Your task to perform on an android device: Go to battery settings Image 0: 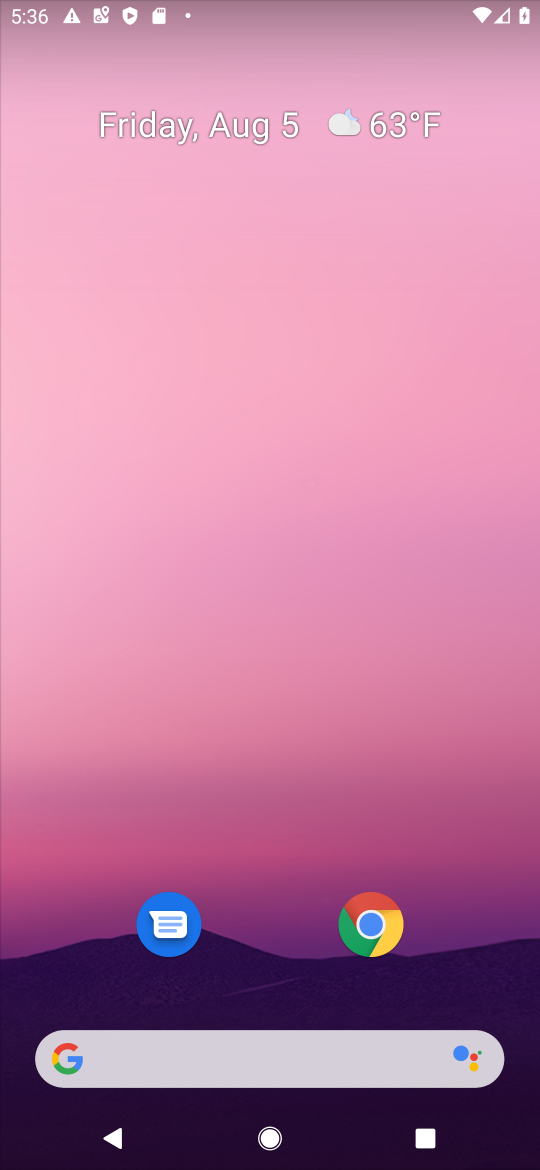
Step 0: drag from (189, 977) to (236, 432)
Your task to perform on an android device: Go to battery settings Image 1: 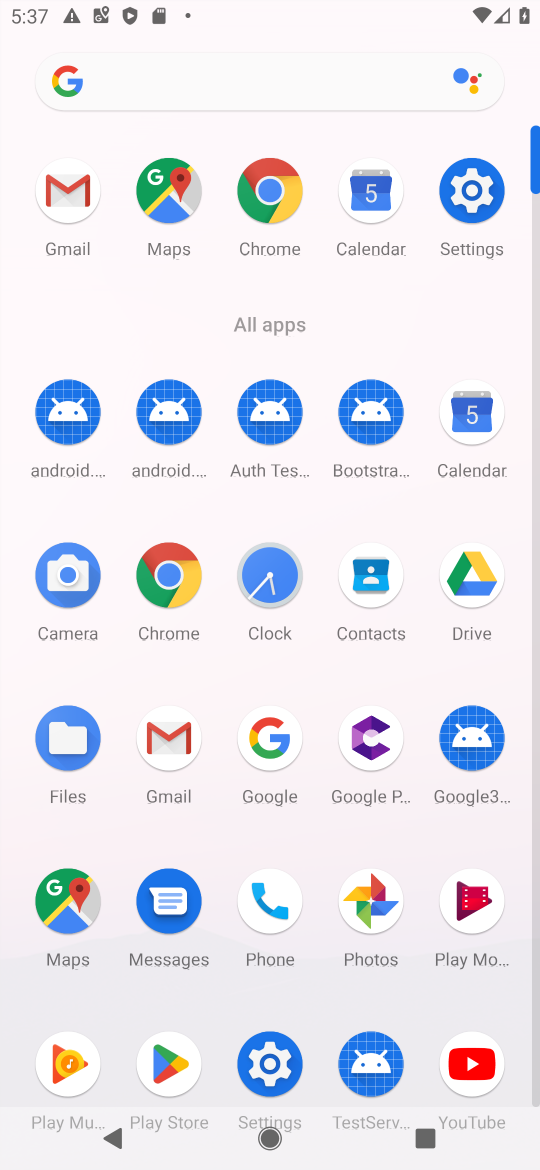
Step 1: click (493, 181)
Your task to perform on an android device: Go to battery settings Image 2: 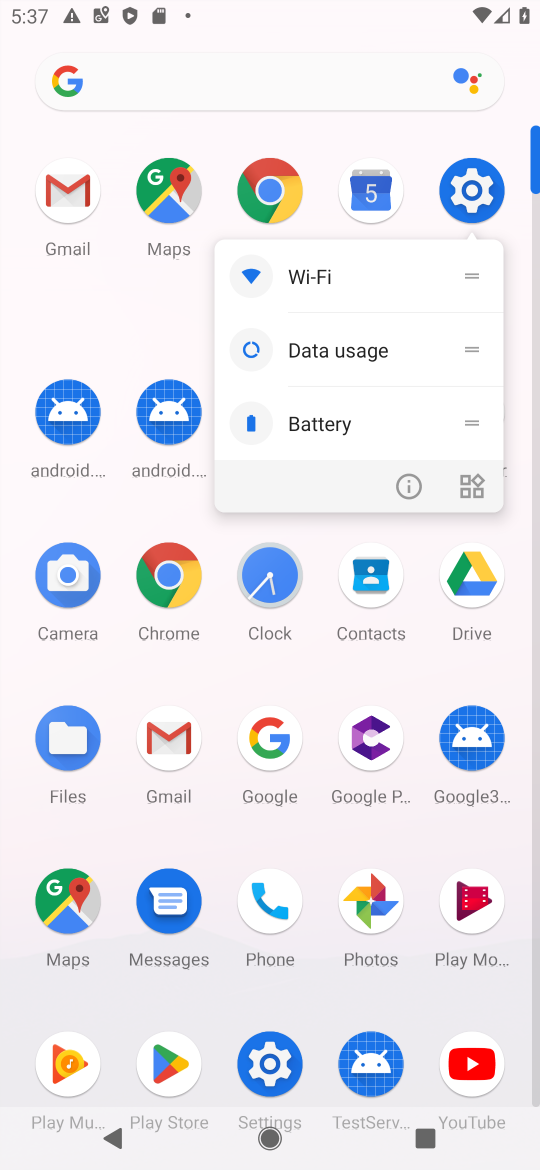
Step 2: click (493, 181)
Your task to perform on an android device: Go to battery settings Image 3: 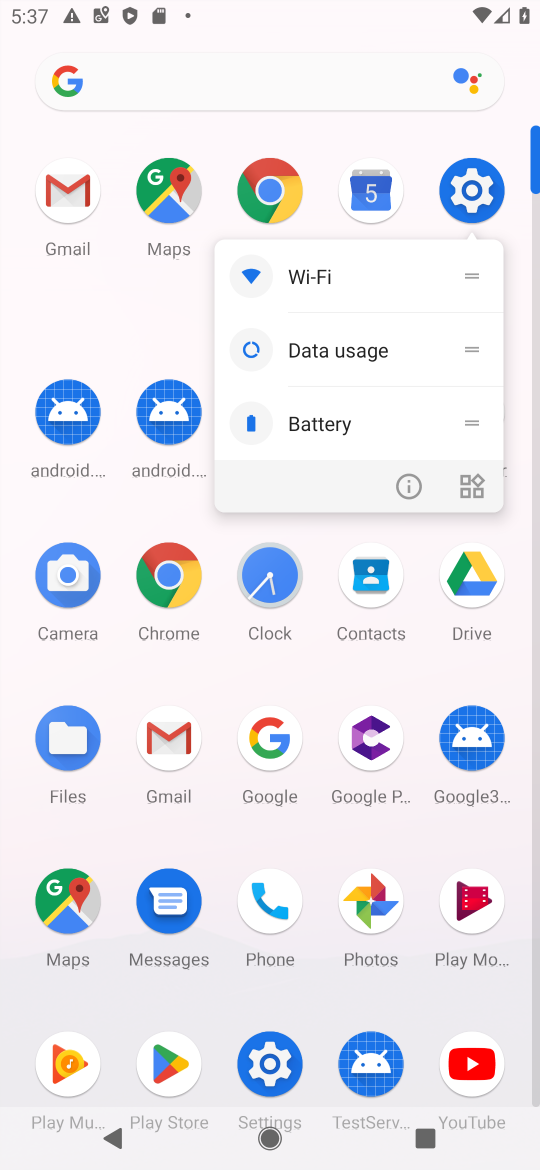
Step 3: click (493, 181)
Your task to perform on an android device: Go to battery settings Image 4: 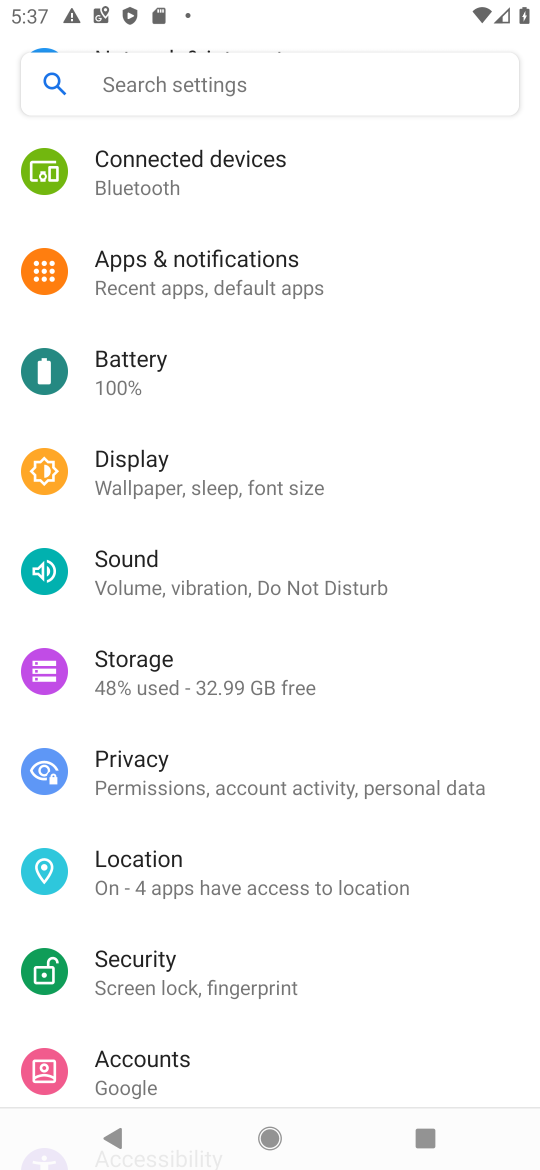
Step 4: click (190, 395)
Your task to perform on an android device: Go to battery settings Image 5: 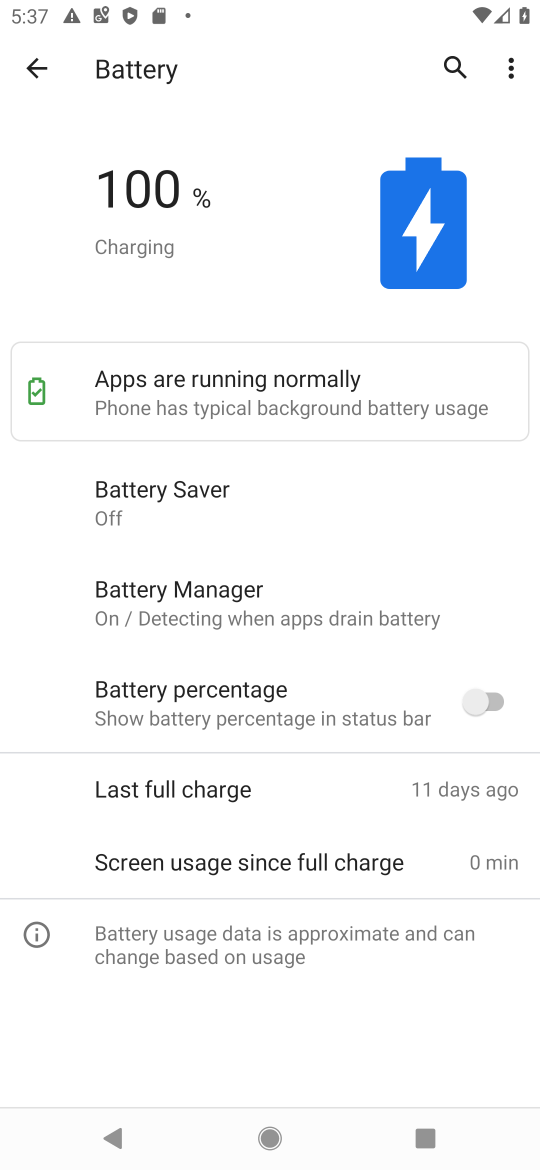
Step 5: task complete